Your task to perform on an android device: toggle sleep mode Image 0: 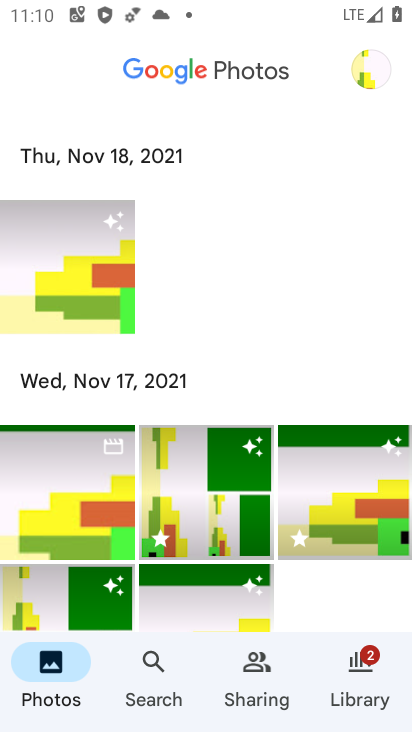
Step 0: press home button
Your task to perform on an android device: toggle sleep mode Image 1: 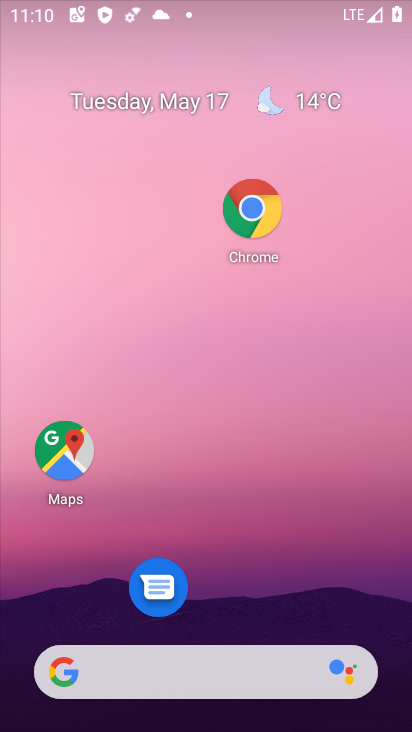
Step 1: drag from (294, 557) to (265, 79)
Your task to perform on an android device: toggle sleep mode Image 2: 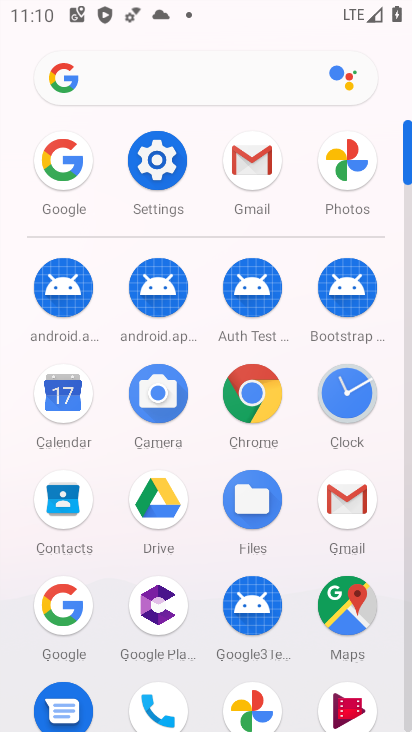
Step 2: click (147, 162)
Your task to perform on an android device: toggle sleep mode Image 3: 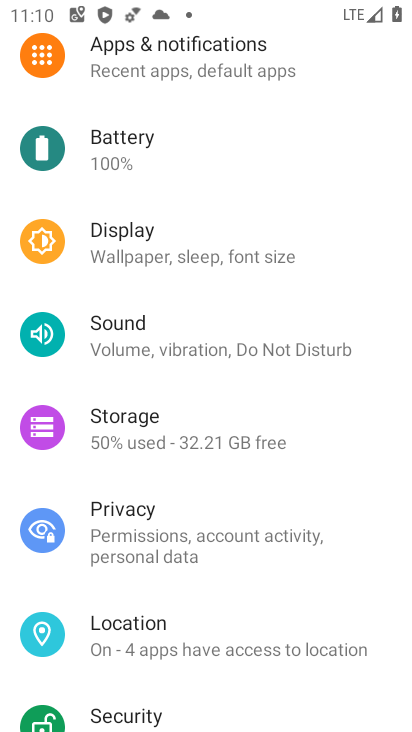
Step 3: click (173, 241)
Your task to perform on an android device: toggle sleep mode Image 4: 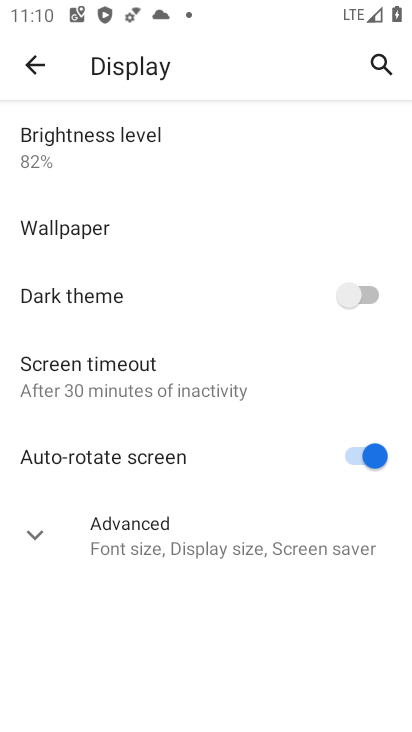
Step 4: click (236, 549)
Your task to perform on an android device: toggle sleep mode Image 5: 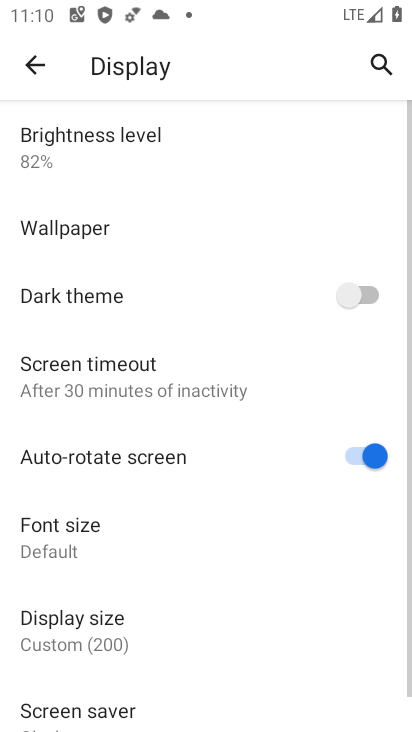
Step 5: task complete